Your task to perform on an android device: find which apps use the phone's location Image 0: 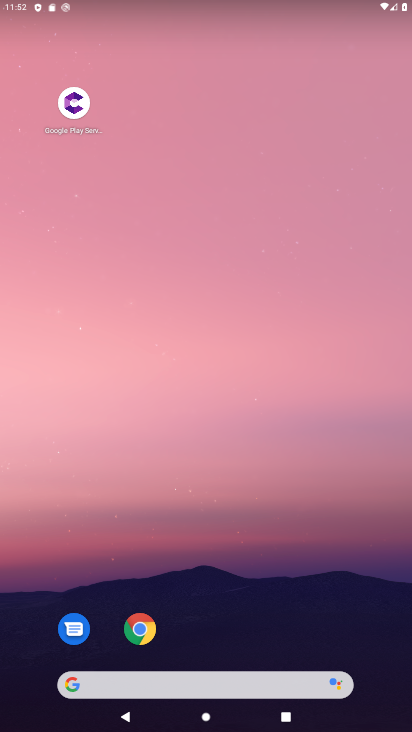
Step 0: drag from (216, 442) to (215, 172)
Your task to perform on an android device: find which apps use the phone's location Image 1: 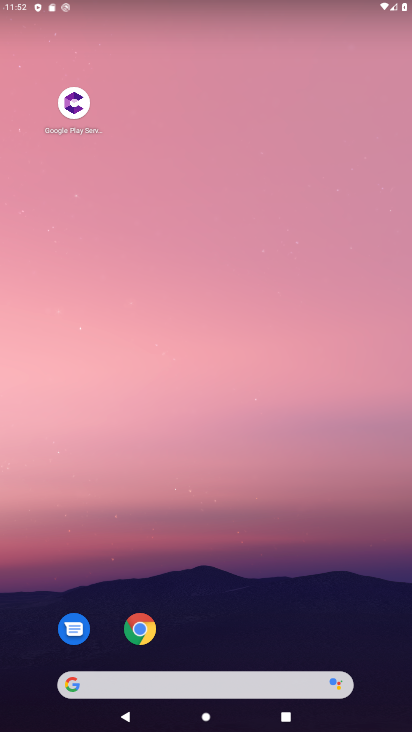
Step 1: drag from (213, 582) to (170, 109)
Your task to perform on an android device: find which apps use the phone's location Image 2: 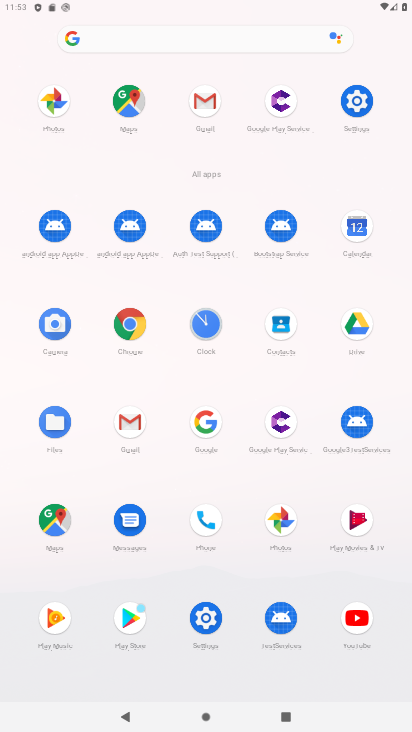
Step 2: click (360, 112)
Your task to perform on an android device: find which apps use the phone's location Image 3: 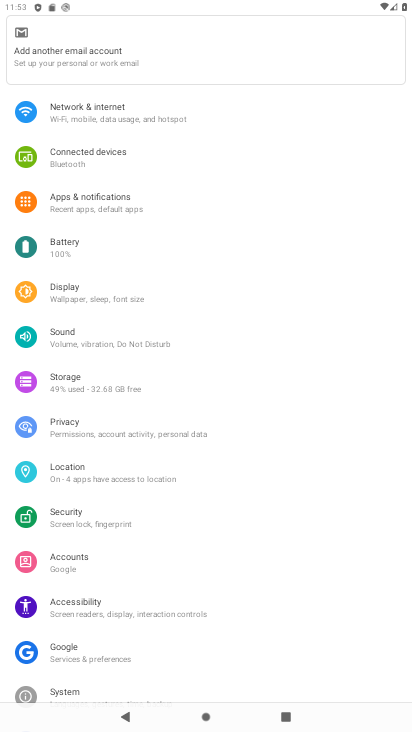
Step 3: click (103, 484)
Your task to perform on an android device: find which apps use the phone's location Image 4: 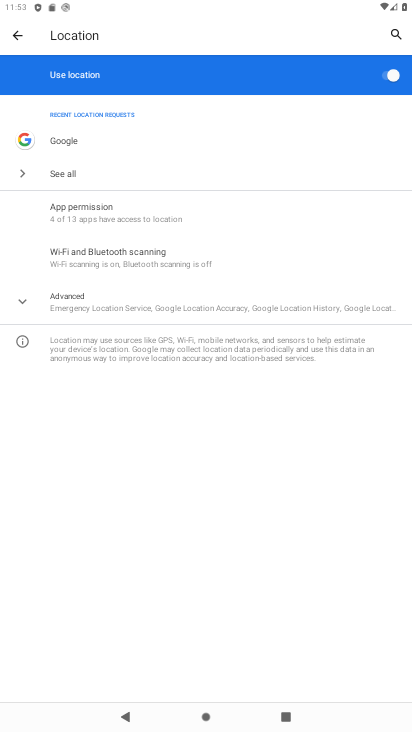
Step 4: click (100, 211)
Your task to perform on an android device: find which apps use the phone's location Image 5: 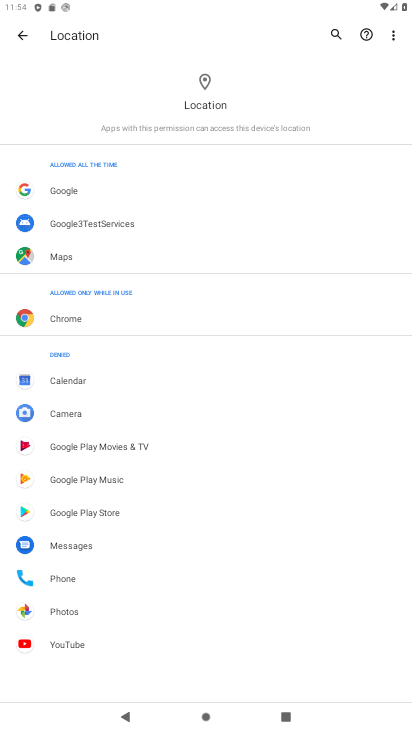
Step 5: task complete